Your task to perform on an android device: Open eBay Image 0: 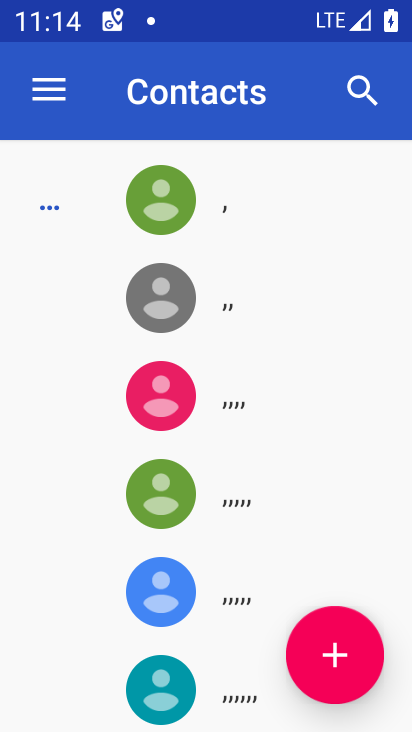
Step 0: press home button
Your task to perform on an android device: Open eBay Image 1: 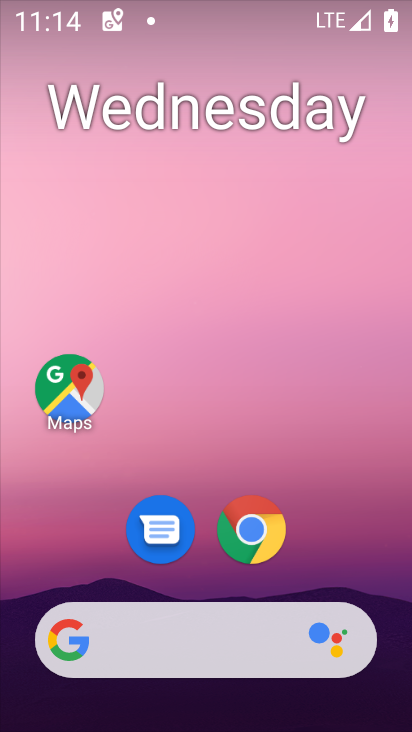
Step 1: click (253, 530)
Your task to perform on an android device: Open eBay Image 2: 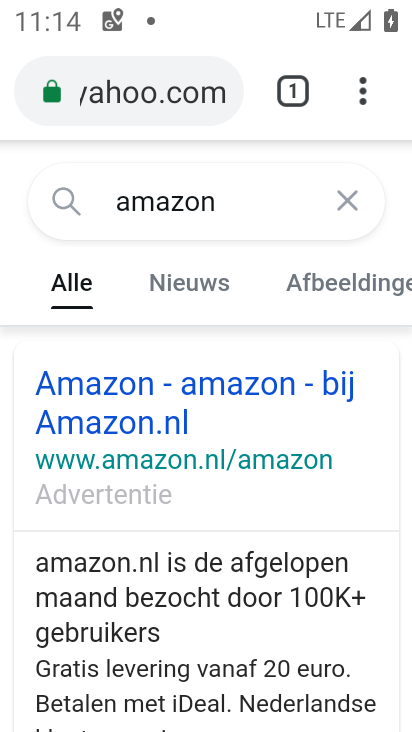
Step 2: click (132, 97)
Your task to perform on an android device: Open eBay Image 3: 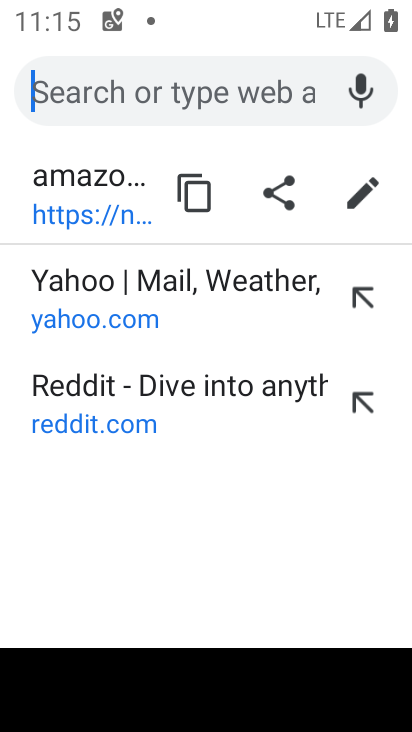
Step 3: type "ebay"
Your task to perform on an android device: Open eBay Image 4: 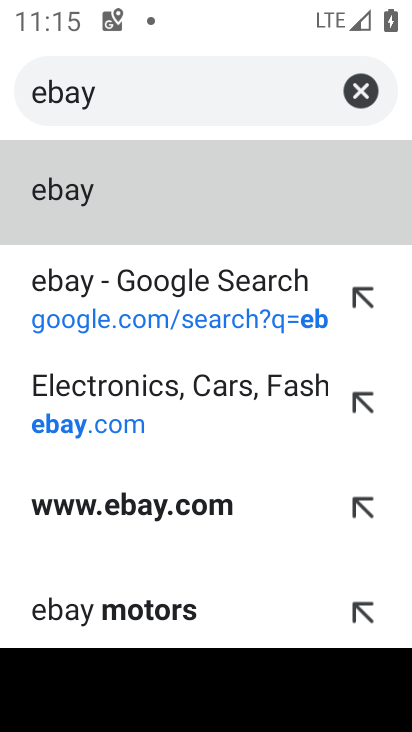
Step 4: click (42, 178)
Your task to perform on an android device: Open eBay Image 5: 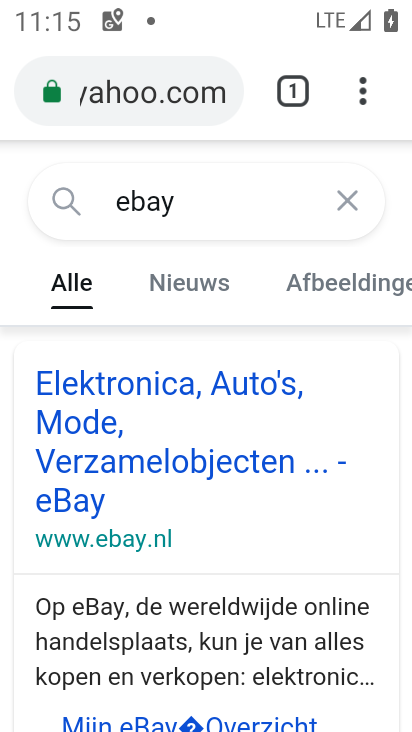
Step 5: click (118, 547)
Your task to perform on an android device: Open eBay Image 6: 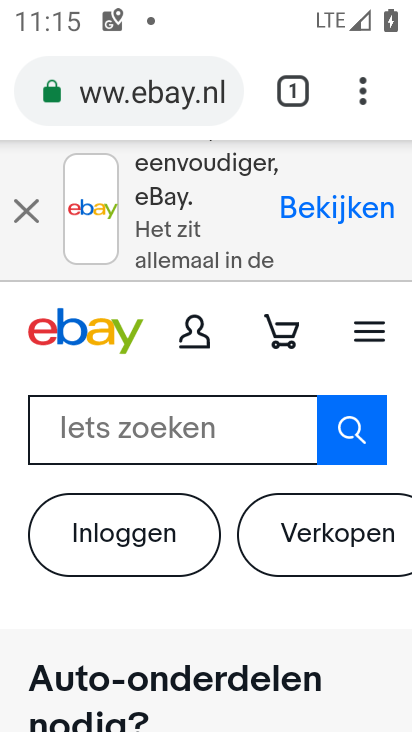
Step 6: task complete